Your task to perform on an android device: open app "Duolingo: language lessons" Image 0: 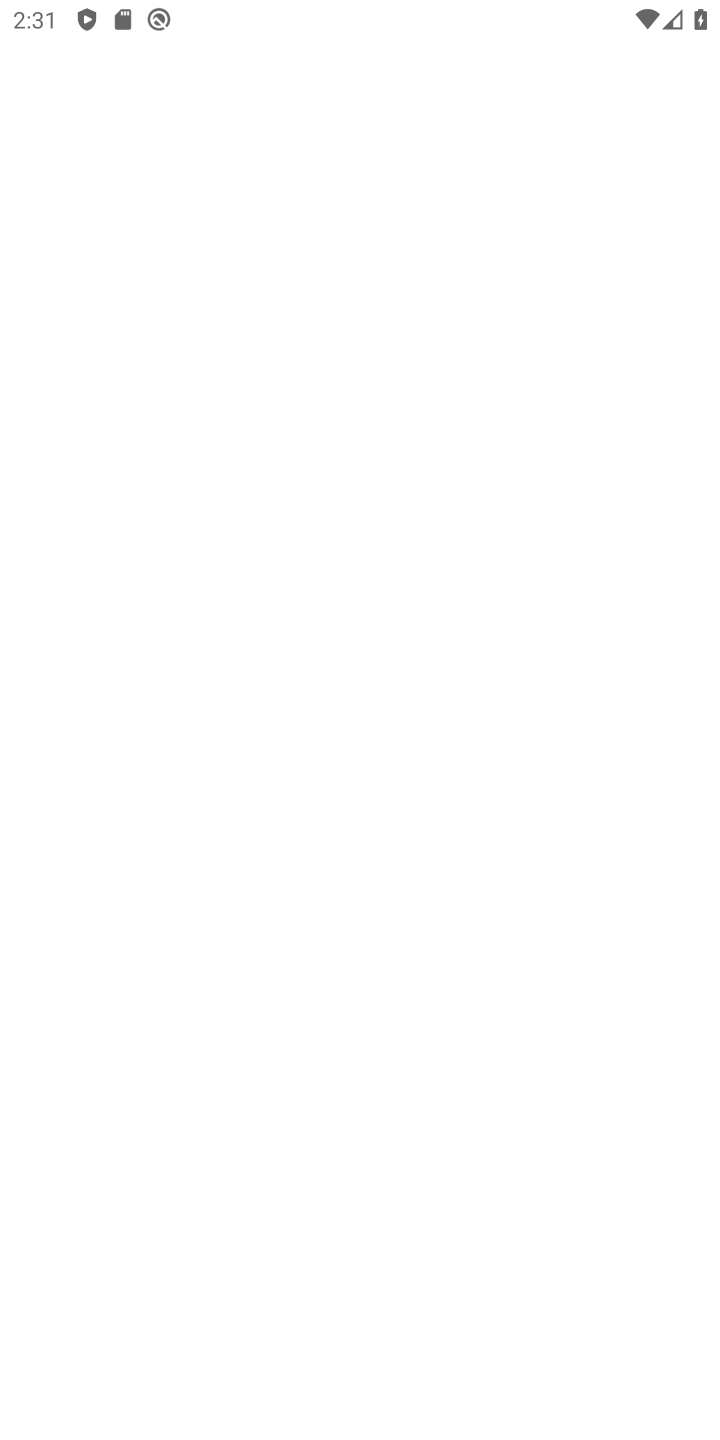
Step 0: press home button
Your task to perform on an android device: open app "Duolingo: language lessons" Image 1: 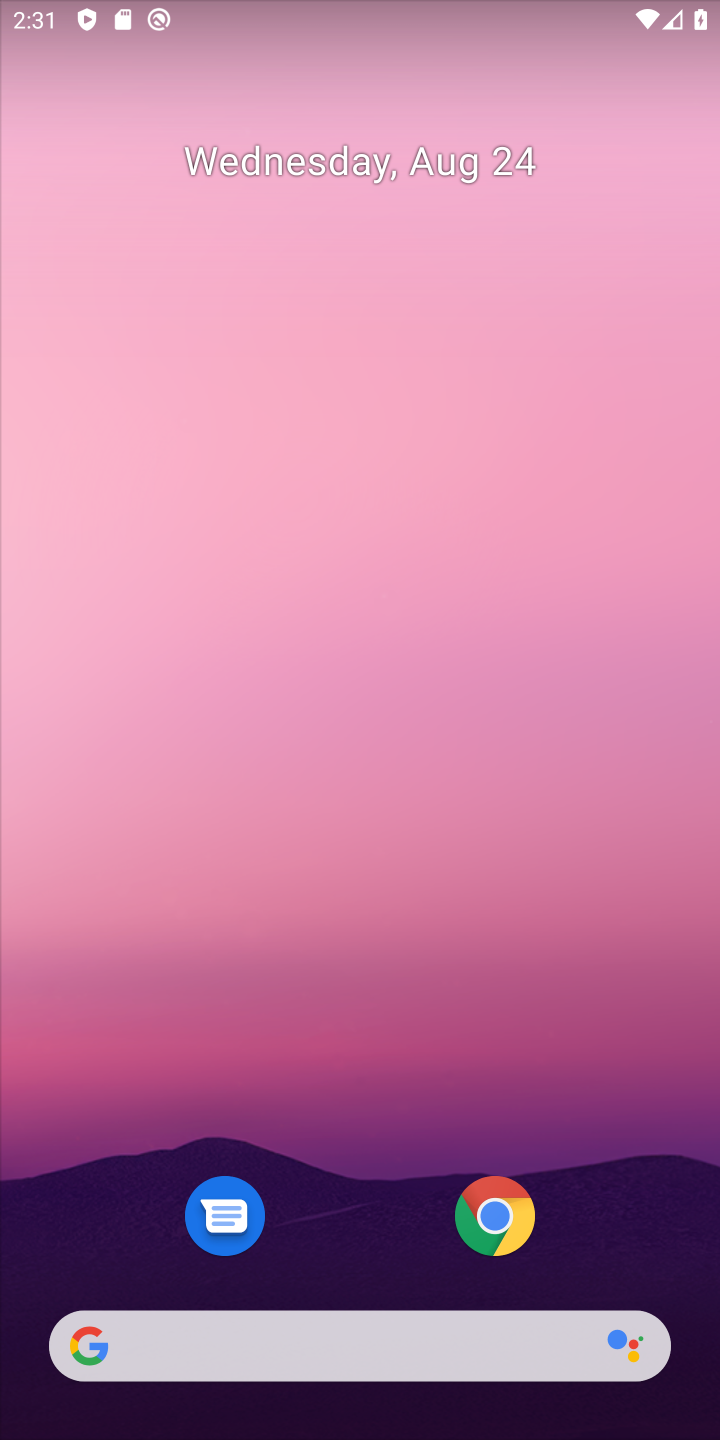
Step 1: drag from (631, 1196) to (637, 117)
Your task to perform on an android device: open app "Duolingo: language lessons" Image 2: 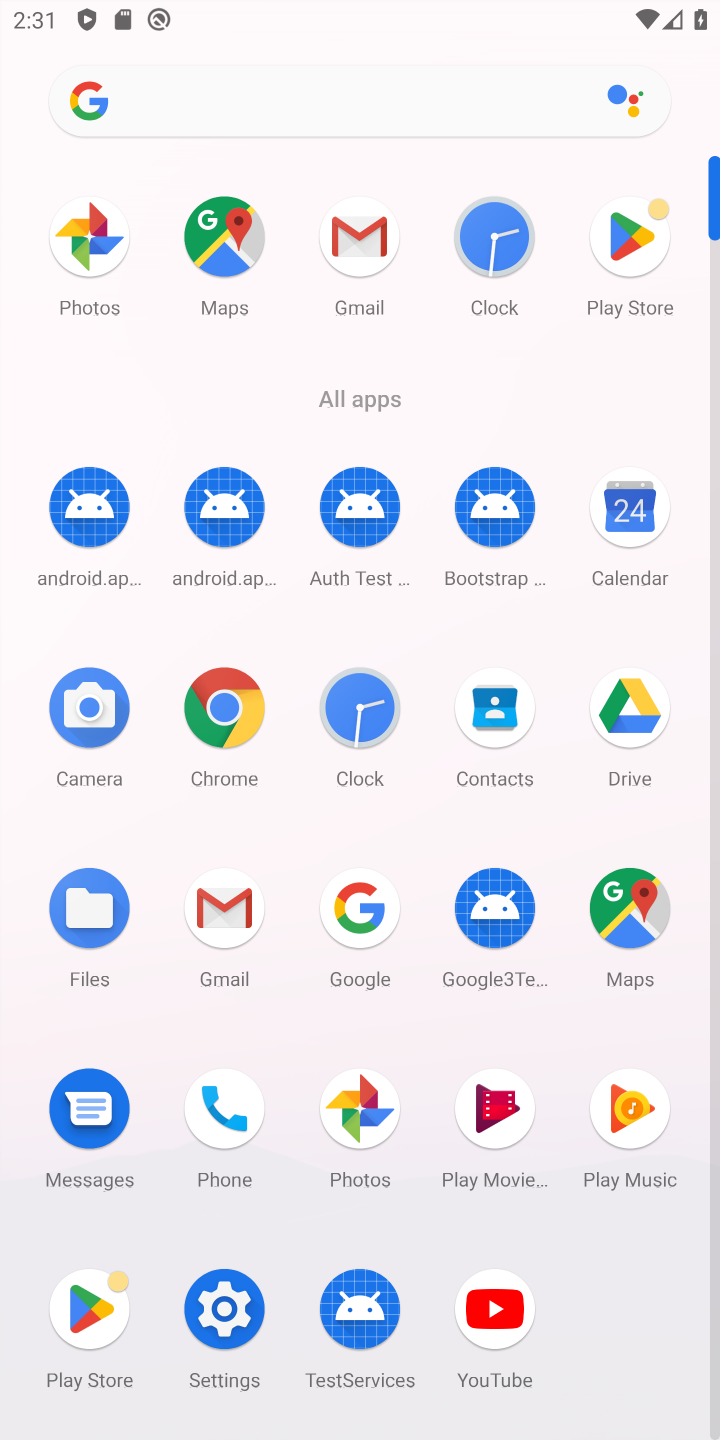
Step 2: click (641, 237)
Your task to perform on an android device: open app "Duolingo: language lessons" Image 3: 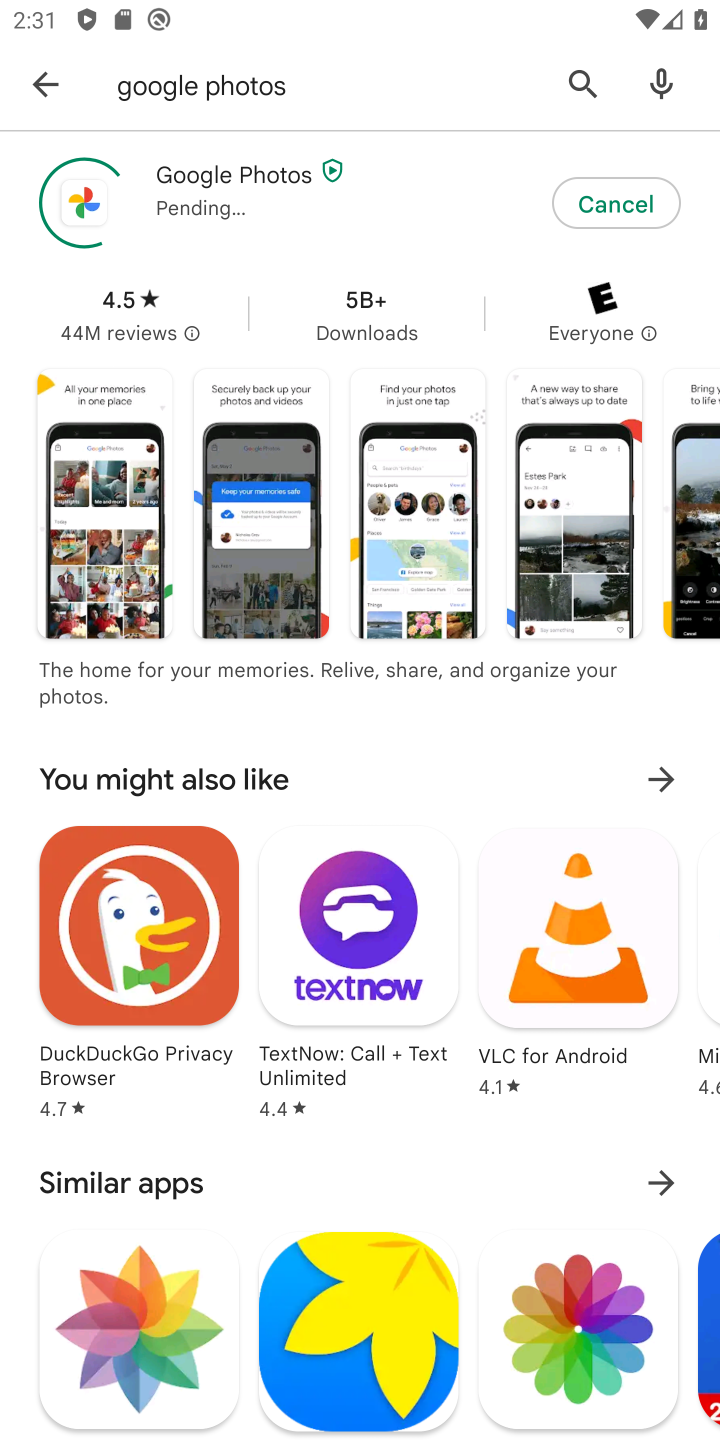
Step 3: press back button
Your task to perform on an android device: open app "Duolingo: language lessons" Image 4: 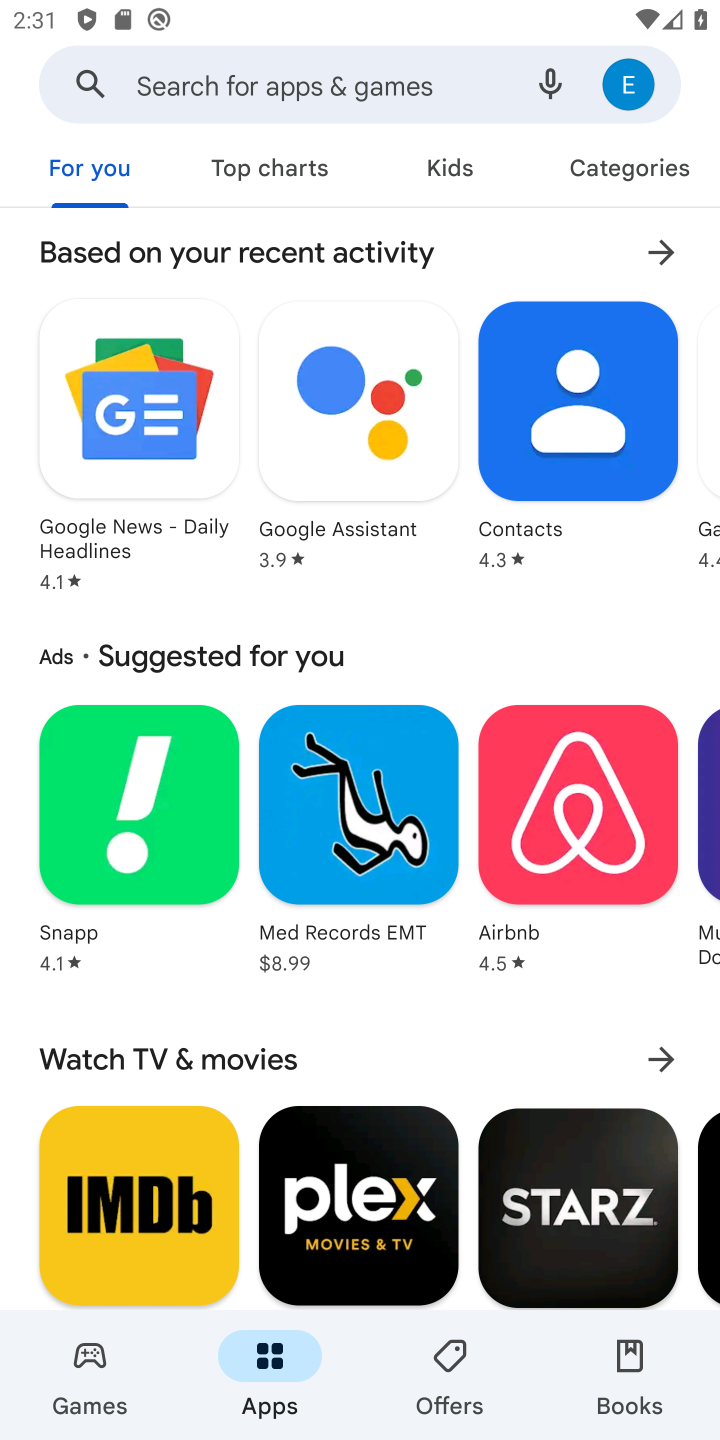
Step 4: click (393, 70)
Your task to perform on an android device: open app "Duolingo: language lessons" Image 5: 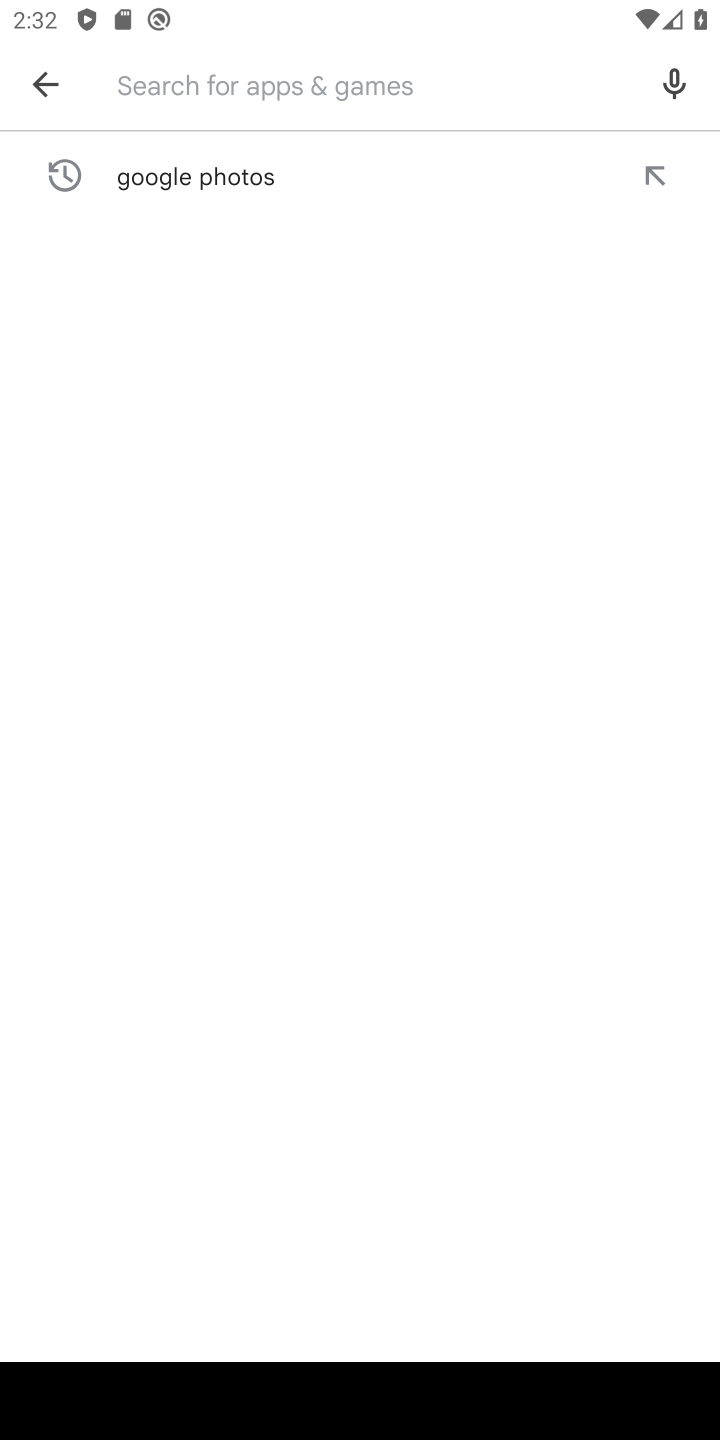
Step 5: press enter
Your task to perform on an android device: open app "Duolingo: language lessons" Image 6: 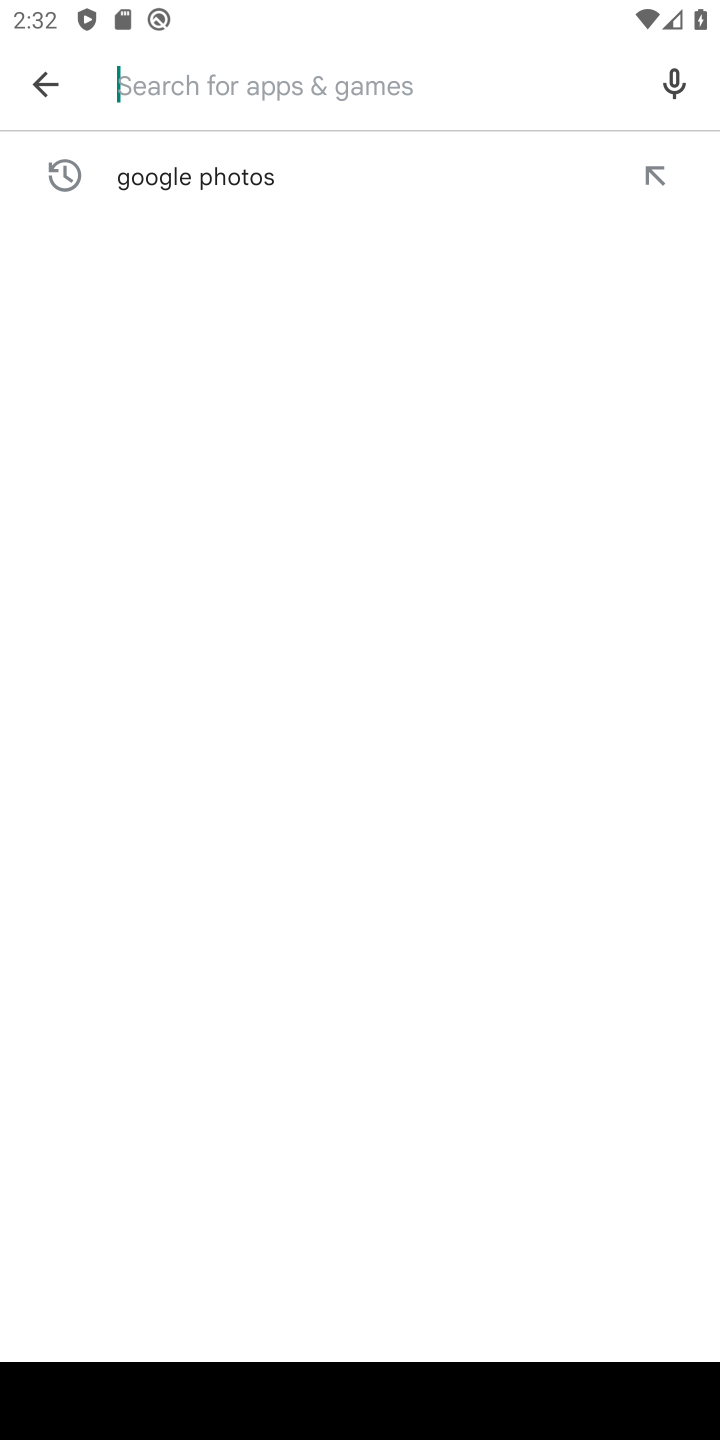
Step 6: type "Duolingo: language lessons"
Your task to perform on an android device: open app "Duolingo: language lessons" Image 7: 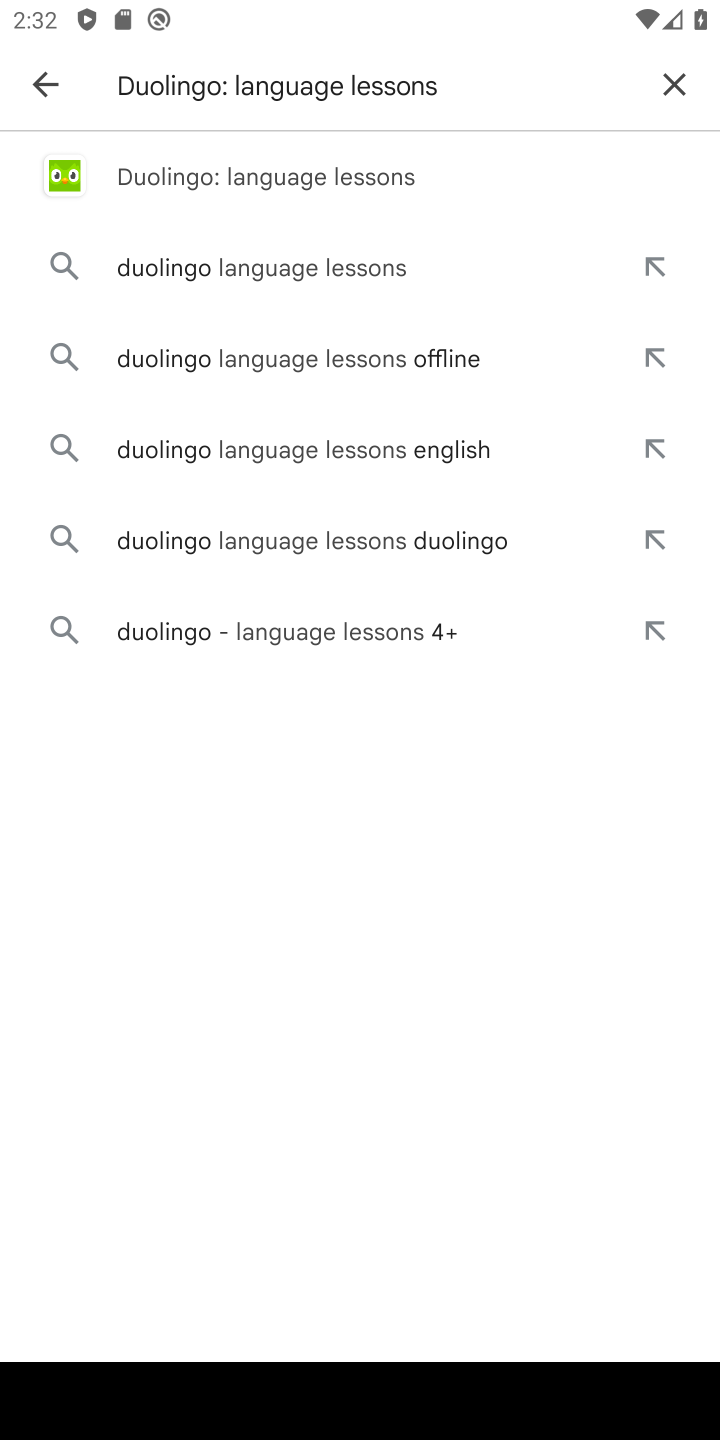
Step 7: click (373, 178)
Your task to perform on an android device: open app "Duolingo: language lessons" Image 8: 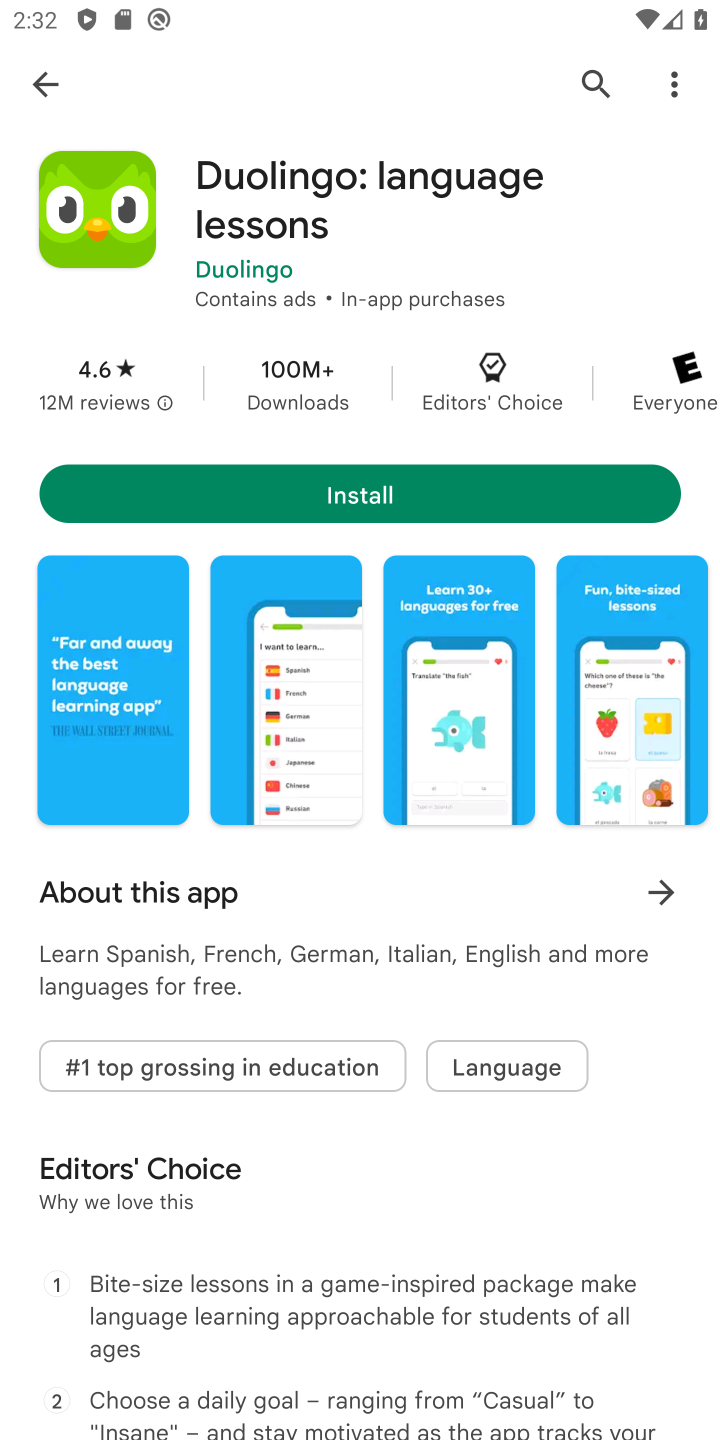
Step 8: task complete